Your task to perform on an android device: add a contact in the contacts app Image 0: 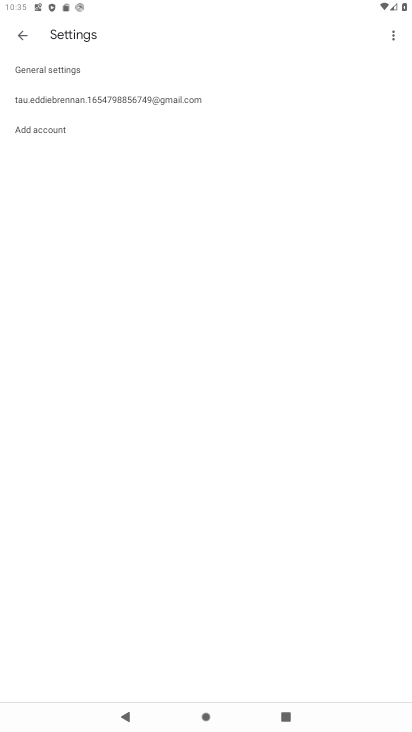
Step 0: press home button
Your task to perform on an android device: add a contact in the contacts app Image 1: 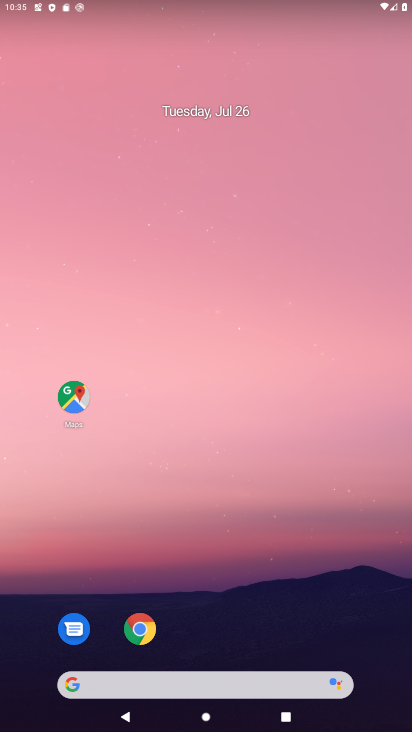
Step 1: drag from (289, 633) to (300, 154)
Your task to perform on an android device: add a contact in the contacts app Image 2: 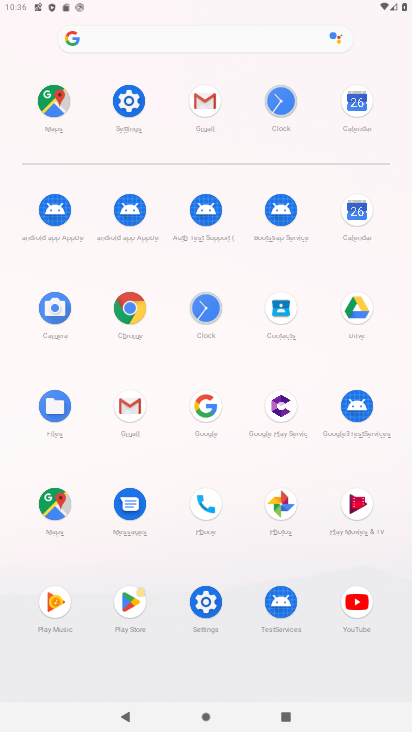
Step 2: click (286, 307)
Your task to perform on an android device: add a contact in the contacts app Image 3: 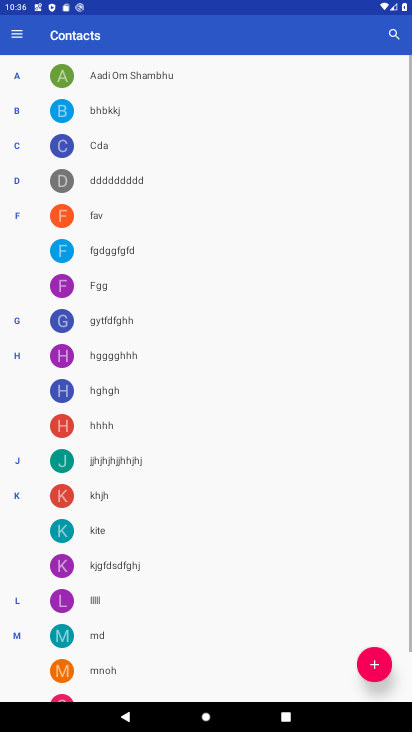
Step 3: task complete